Your task to perform on an android device: Search for pizza restaurants on Maps Image 0: 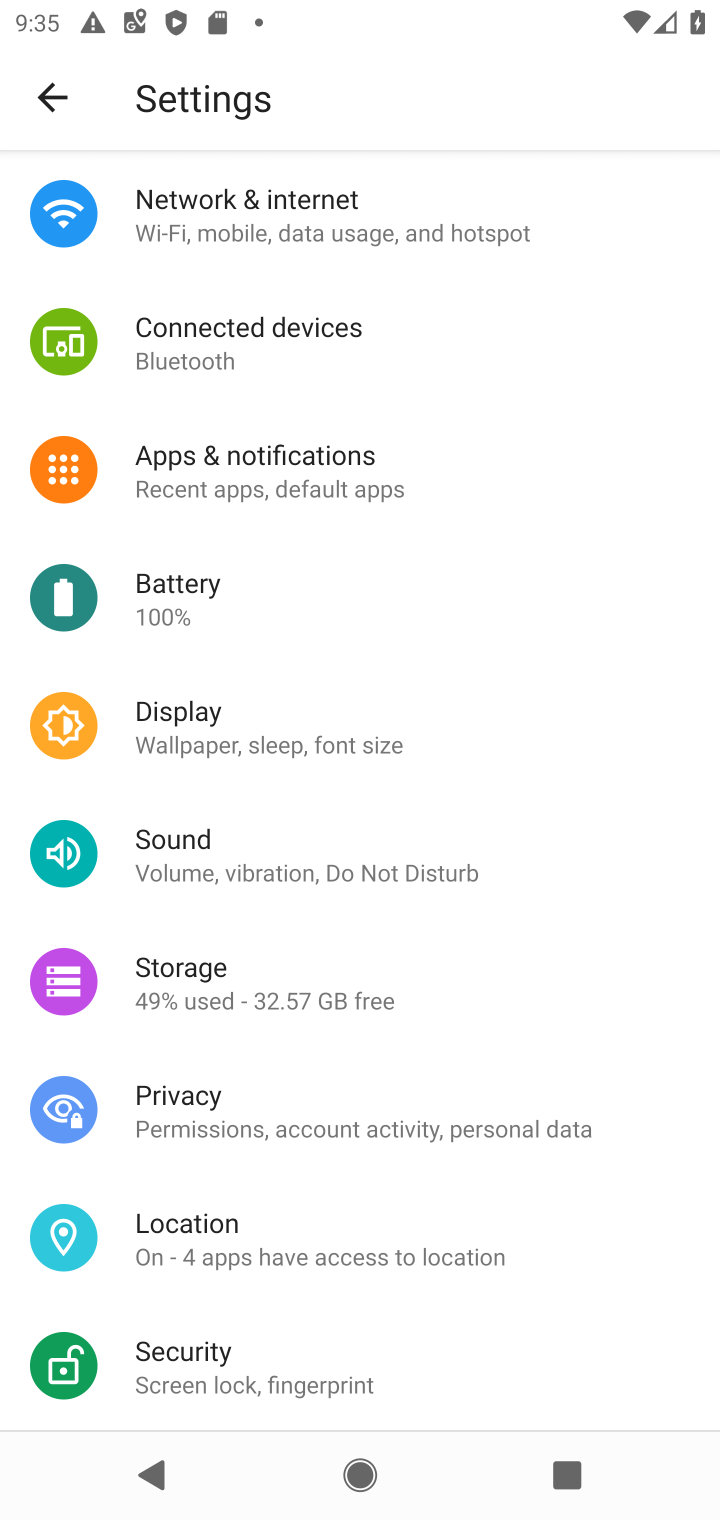
Step 0: press home button
Your task to perform on an android device: Search for pizza restaurants on Maps Image 1: 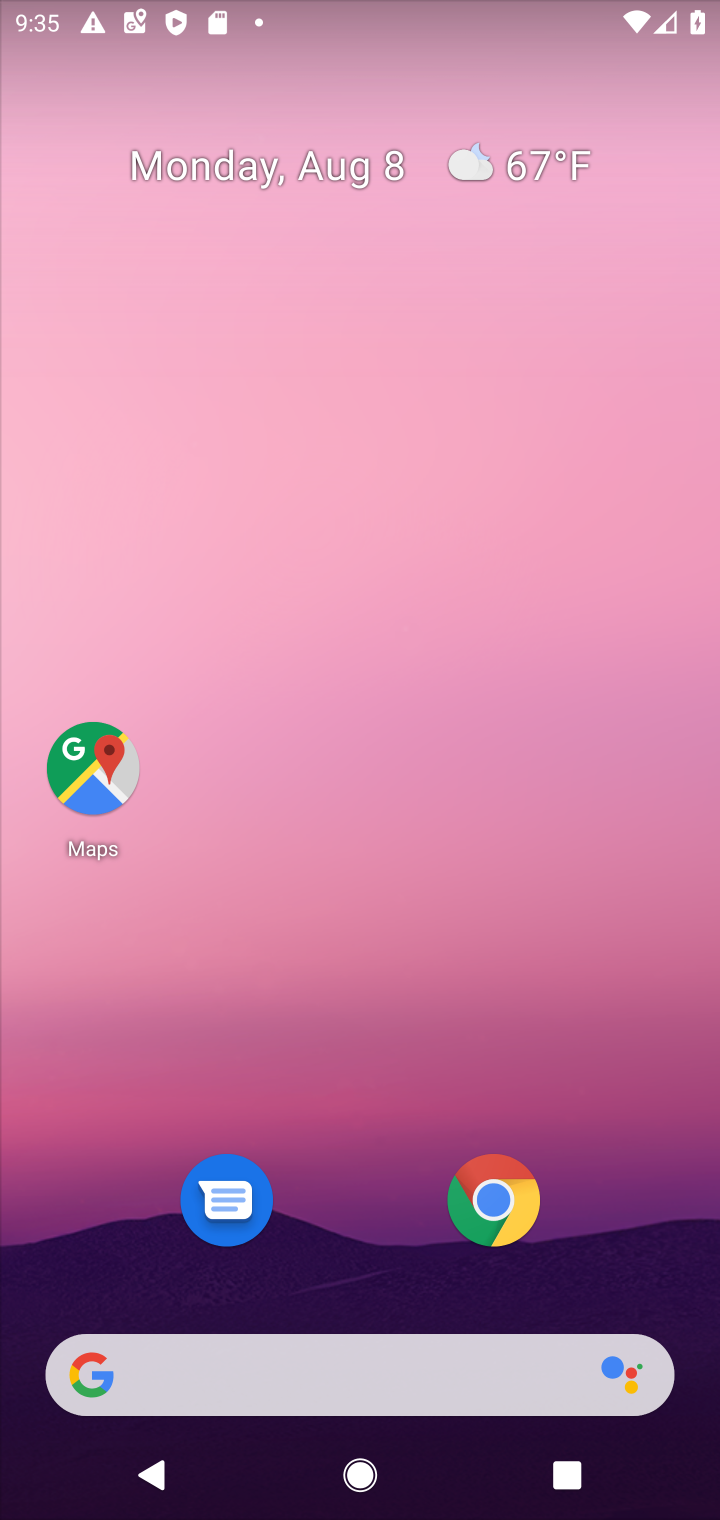
Step 1: click (85, 777)
Your task to perform on an android device: Search for pizza restaurants on Maps Image 2: 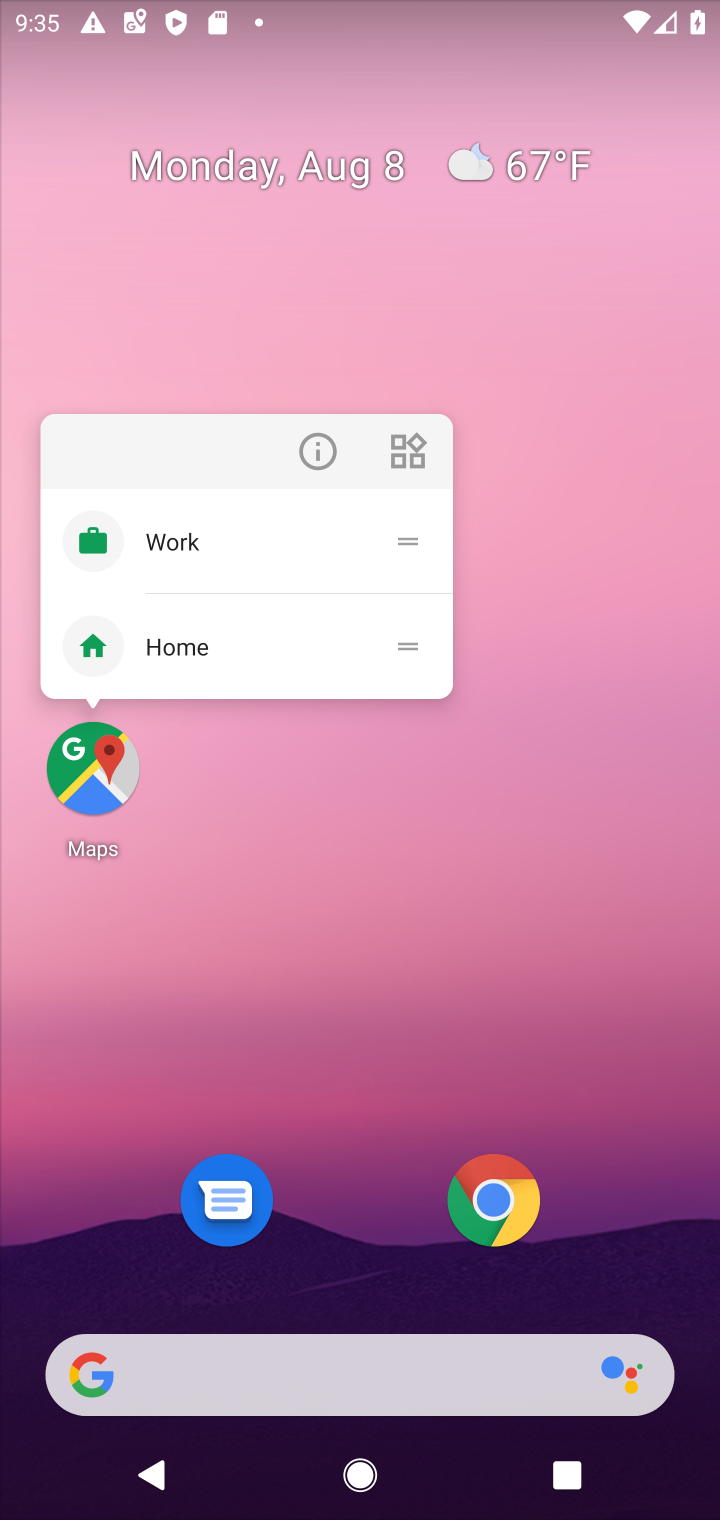
Step 2: click (85, 777)
Your task to perform on an android device: Search for pizza restaurants on Maps Image 3: 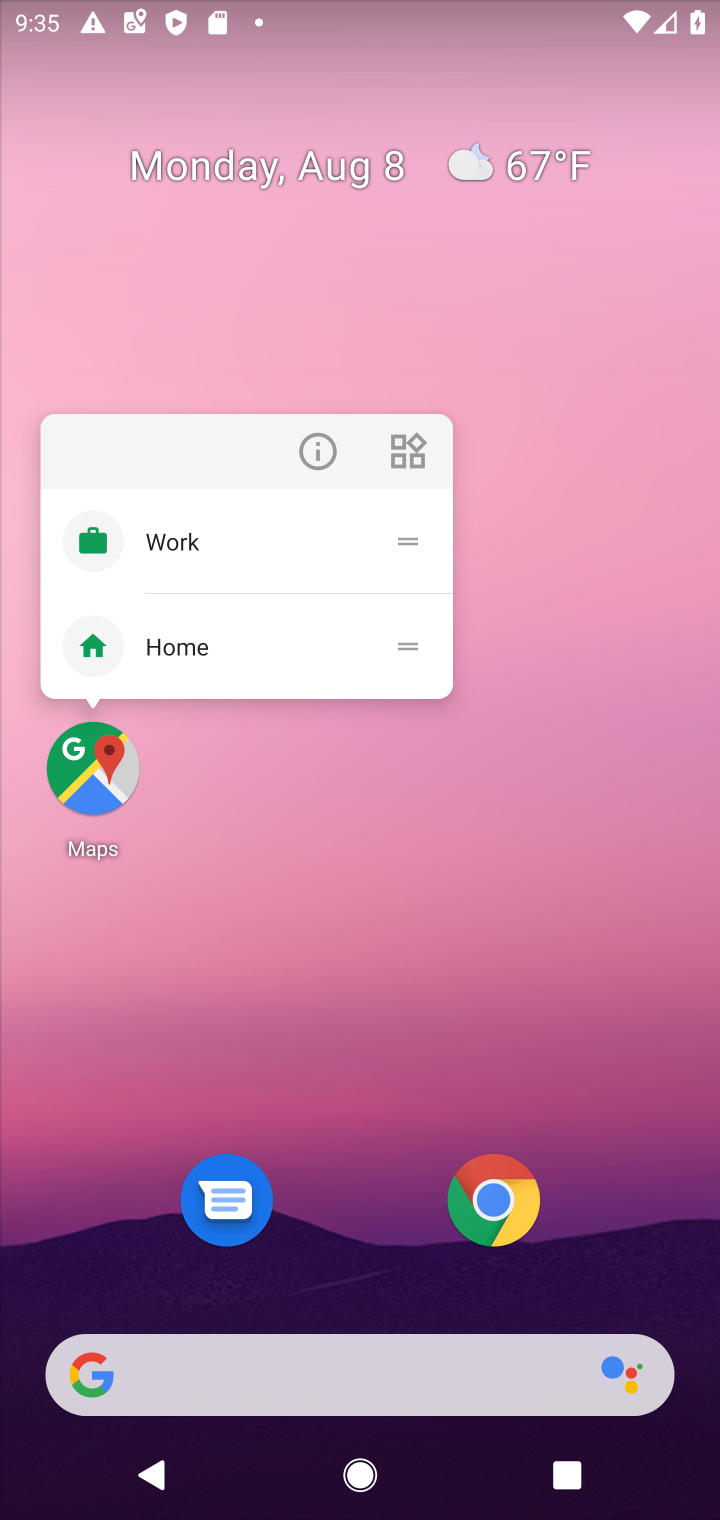
Step 3: click (85, 781)
Your task to perform on an android device: Search for pizza restaurants on Maps Image 4: 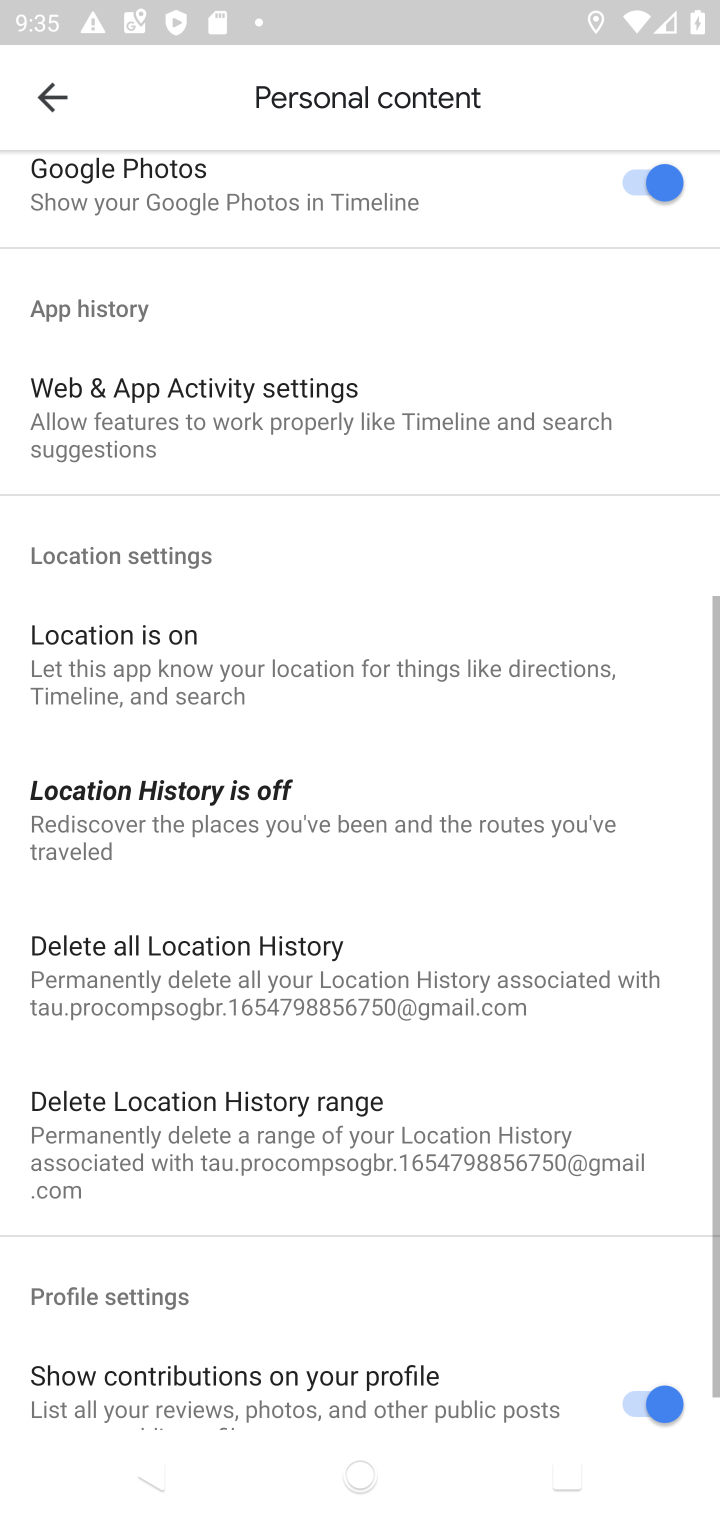
Step 4: click (34, 96)
Your task to perform on an android device: Search for pizza restaurants on Maps Image 5: 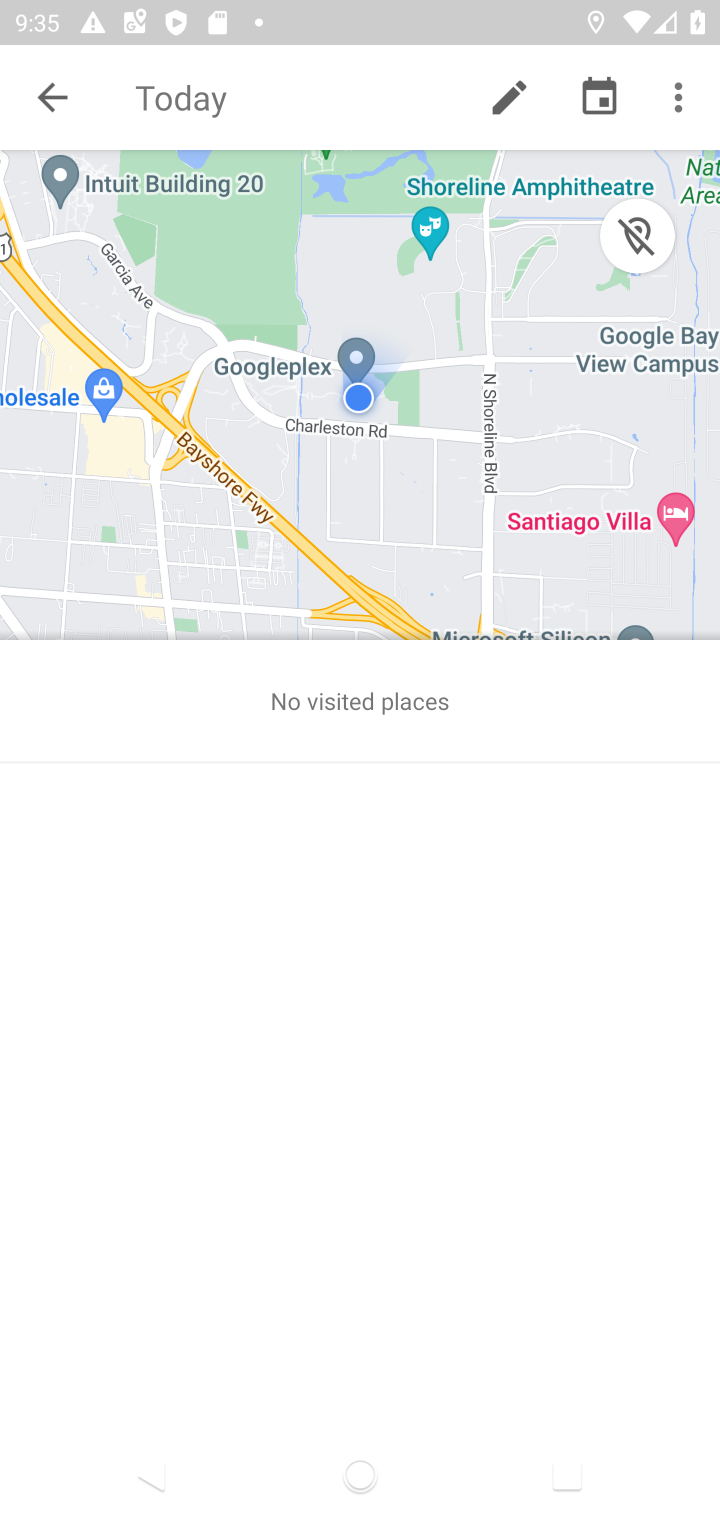
Step 5: click (53, 100)
Your task to perform on an android device: Search for pizza restaurants on Maps Image 6: 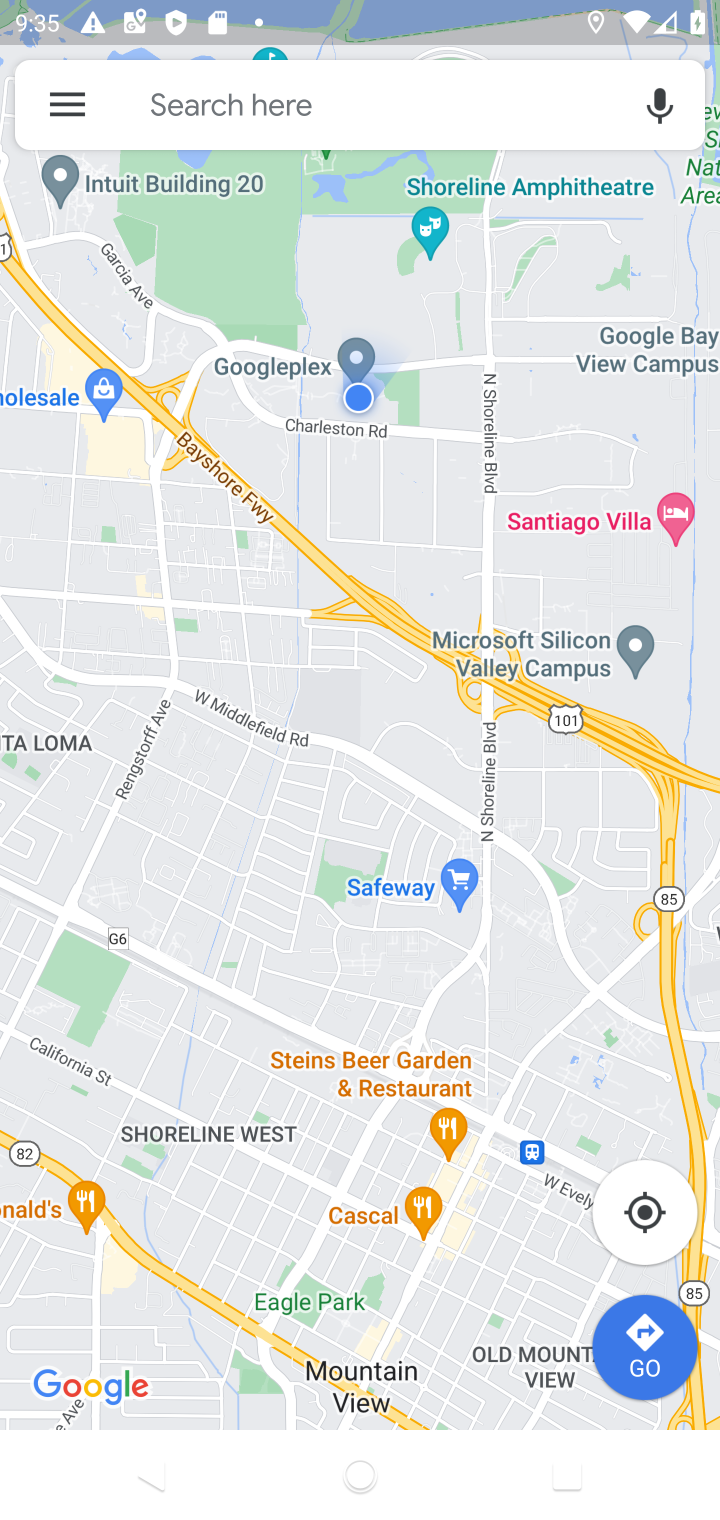
Step 6: click (276, 94)
Your task to perform on an android device: Search for pizza restaurants on Maps Image 7: 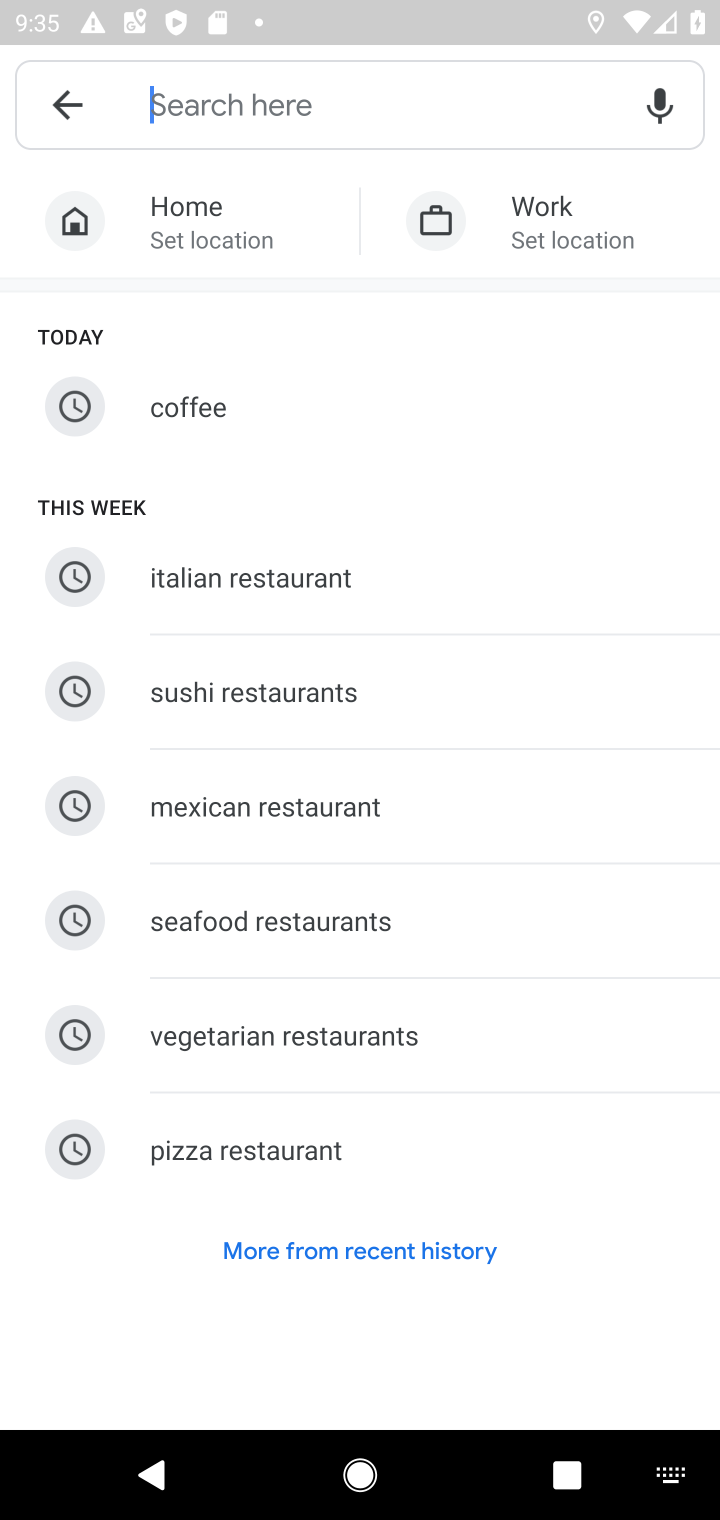
Step 7: click (226, 1143)
Your task to perform on an android device: Search for pizza restaurants on Maps Image 8: 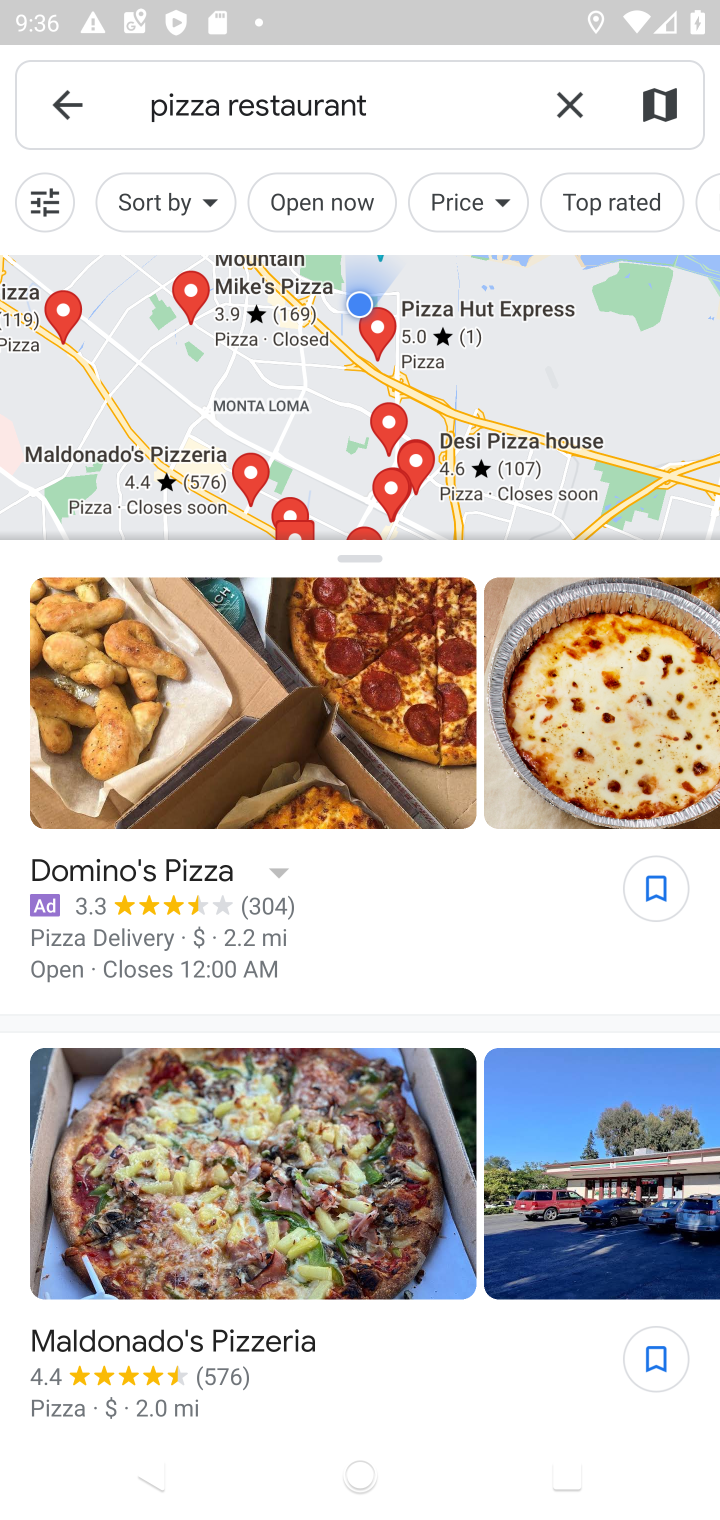
Step 8: task complete